Your task to perform on an android device: change notifications settings Image 0: 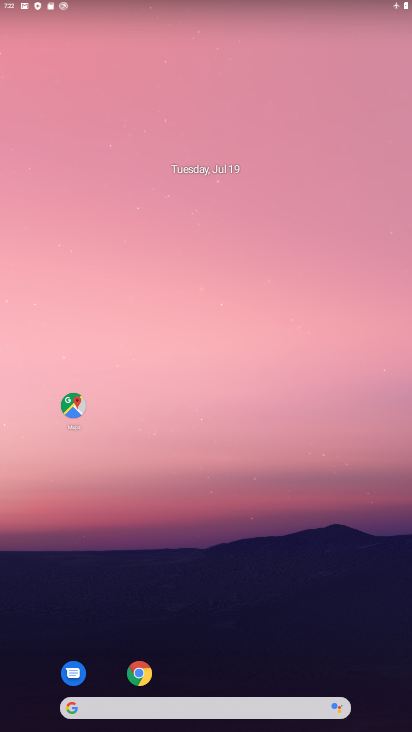
Step 0: drag from (281, 684) to (192, 82)
Your task to perform on an android device: change notifications settings Image 1: 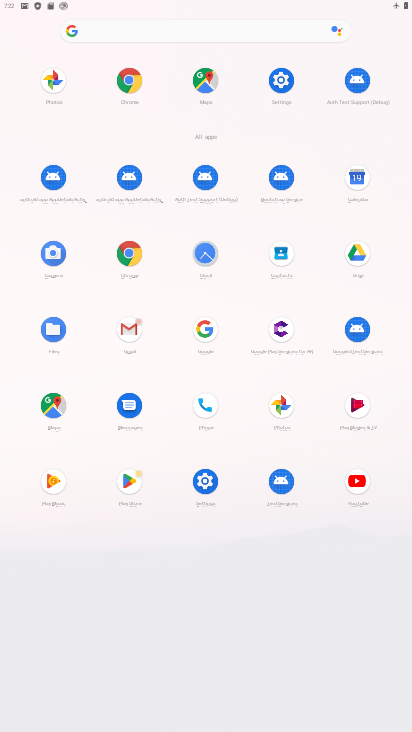
Step 1: click (296, 96)
Your task to perform on an android device: change notifications settings Image 2: 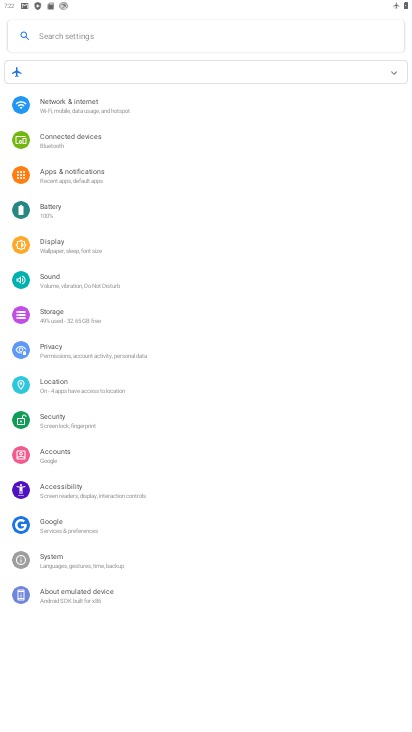
Step 2: click (99, 182)
Your task to perform on an android device: change notifications settings Image 3: 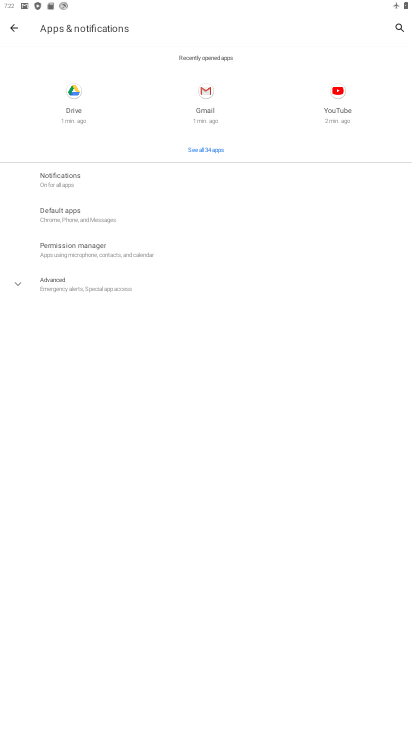
Step 3: click (59, 176)
Your task to perform on an android device: change notifications settings Image 4: 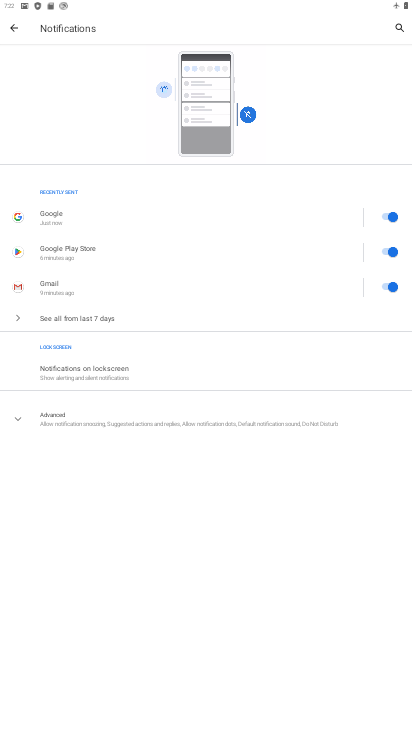
Step 4: click (380, 212)
Your task to perform on an android device: change notifications settings Image 5: 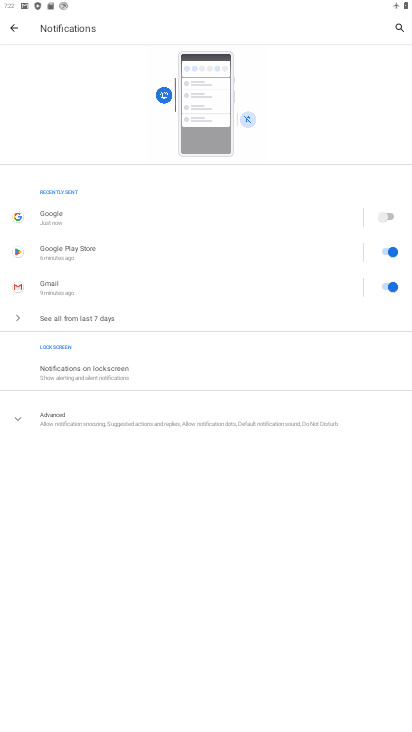
Step 5: task complete